Your task to perform on an android device: Open Amazon Image 0: 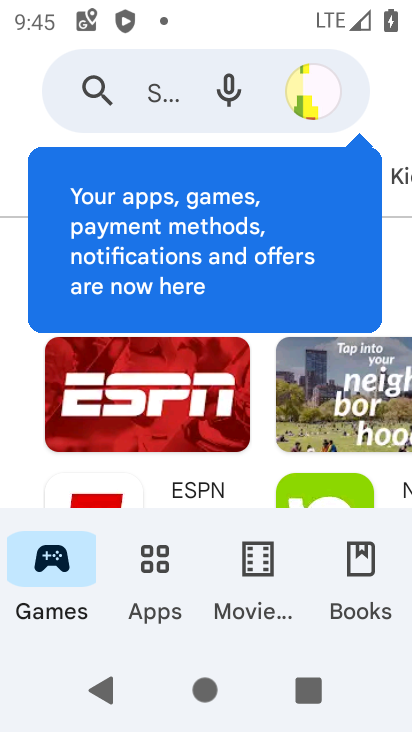
Step 0: press home button
Your task to perform on an android device: Open Amazon Image 1: 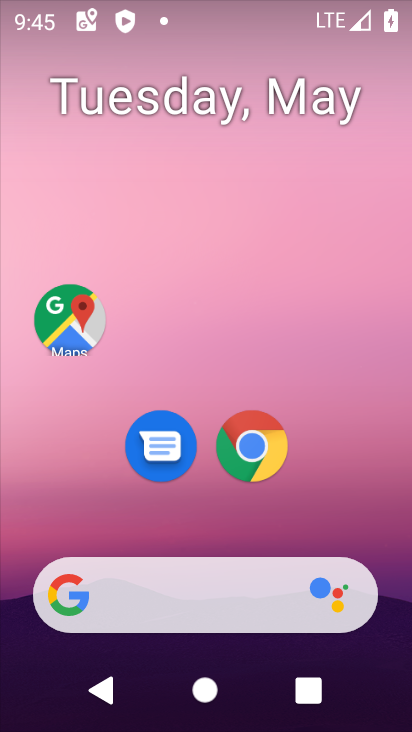
Step 1: click (230, 460)
Your task to perform on an android device: Open Amazon Image 2: 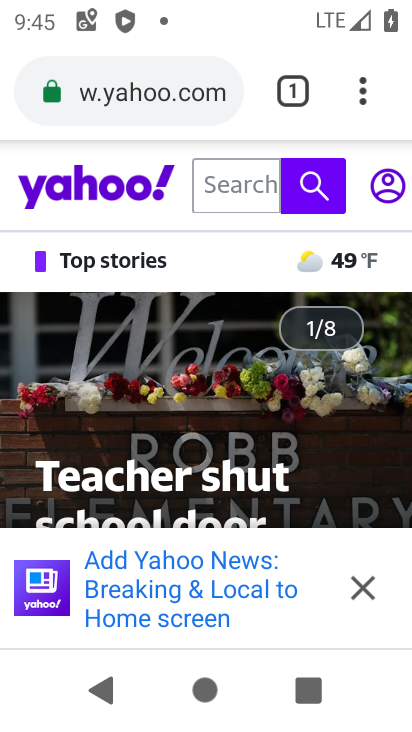
Step 2: click (149, 102)
Your task to perform on an android device: Open Amazon Image 3: 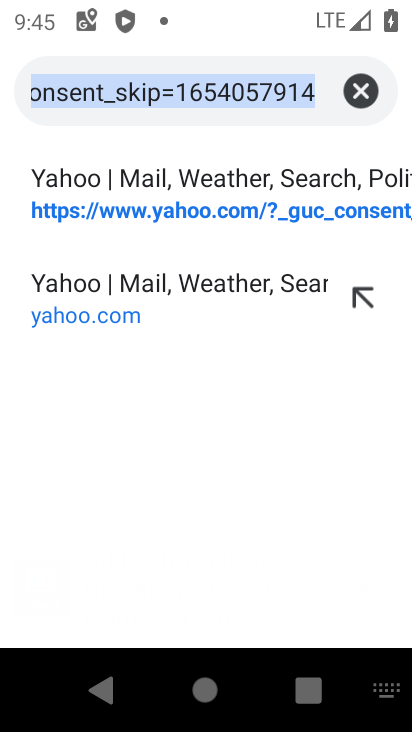
Step 3: type "amazon"
Your task to perform on an android device: Open Amazon Image 4: 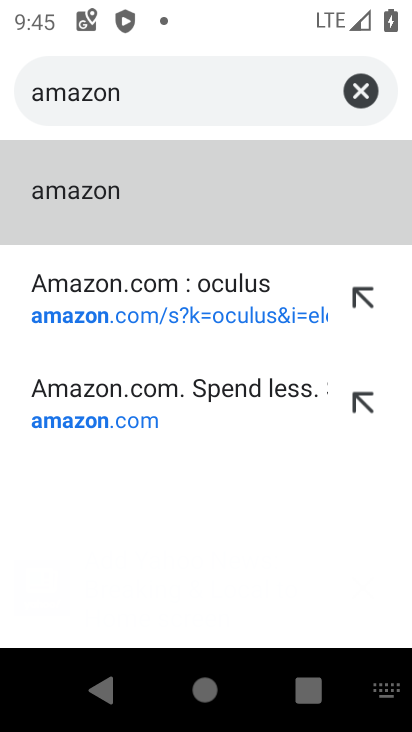
Step 4: click (190, 403)
Your task to perform on an android device: Open Amazon Image 5: 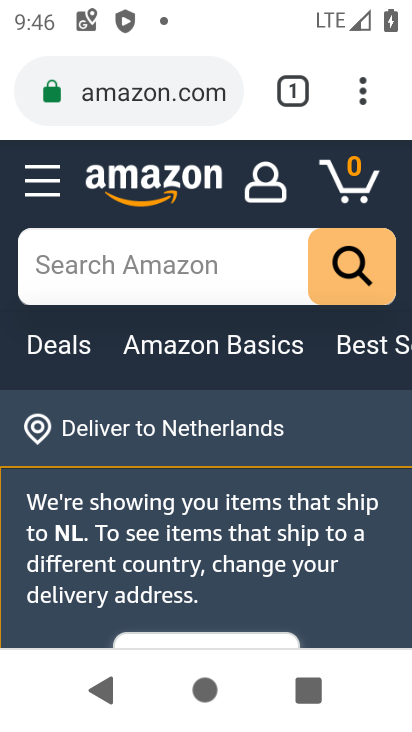
Step 5: task complete